Your task to perform on an android device: Go to eBay Image 0: 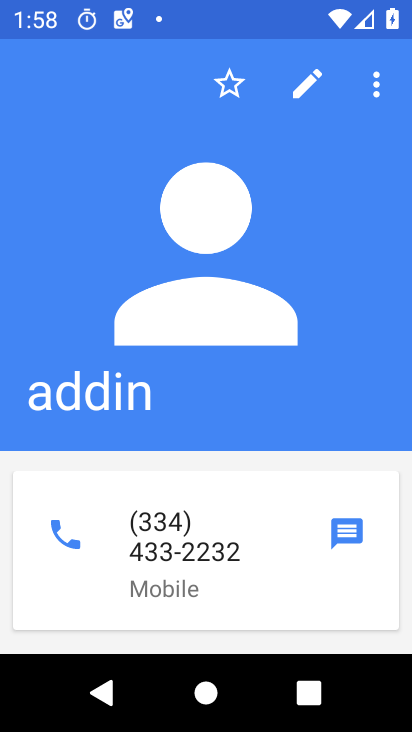
Step 0: press home button
Your task to perform on an android device: Go to eBay Image 1: 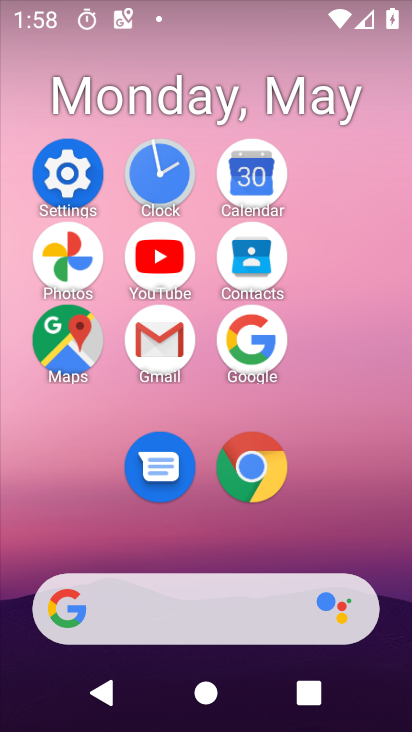
Step 1: click (241, 484)
Your task to perform on an android device: Go to eBay Image 2: 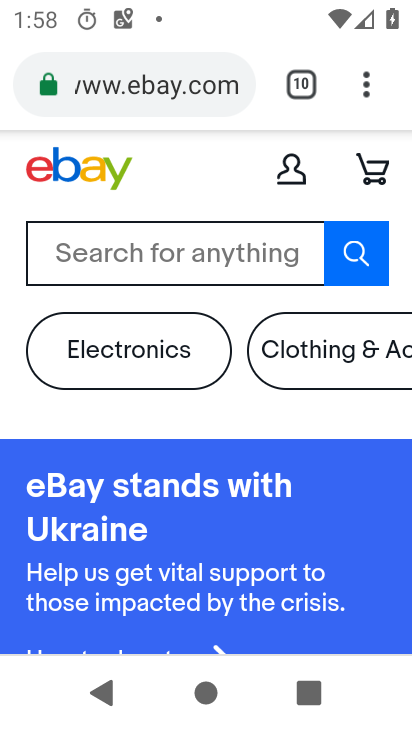
Step 2: click (303, 79)
Your task to perform on an android device: Go to eBay Image 3: 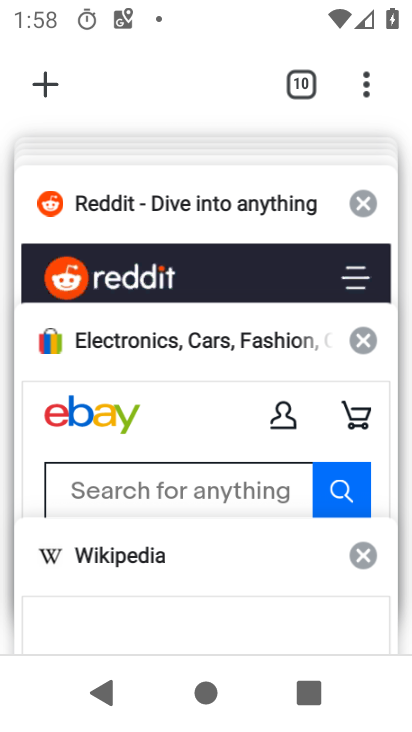
Step 3: click (188, 413)
Your task to perform on an android device: Go to eBay Image 4: 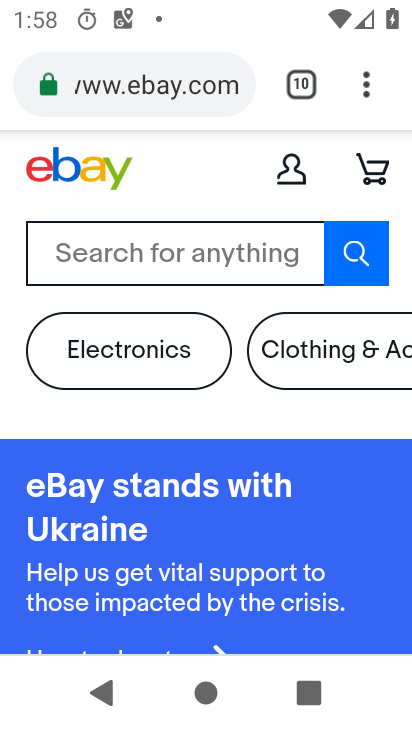
Step 4: task complete